Your task to perform on an android device: Open wifi settings Image 0: 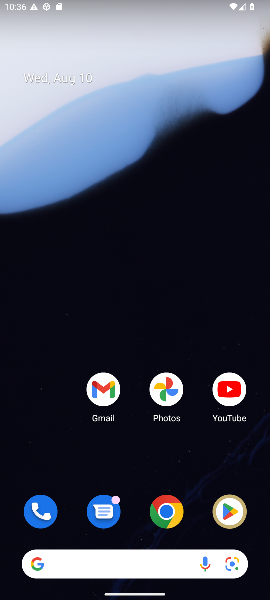
Step 0: drag from (142, 3) to (136, 404)
Your task to perform on an android device: Open wifi settings Image 1: 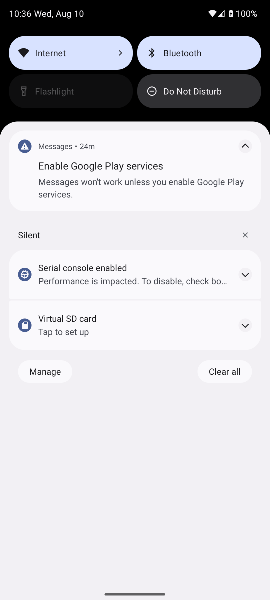
Step 1: click (57, 45)
Your task to perform on an android device: Open wifi settings Image 2: 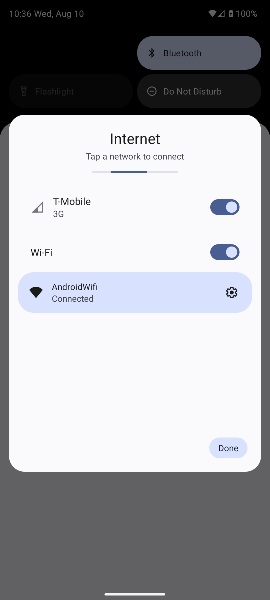
Step 2: click (233, 293)
Your task to perform on an android device: Open wifi settings Image 3: 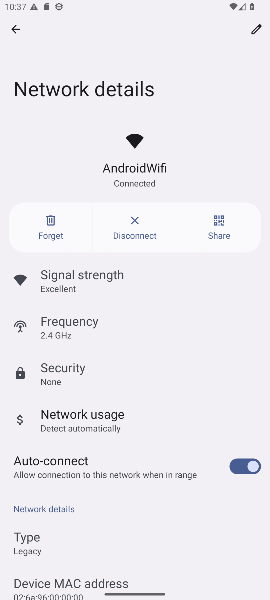
Step 3: task complete